Your task to perform on an android device: What's the weather going to be tomorrow? Image 0: 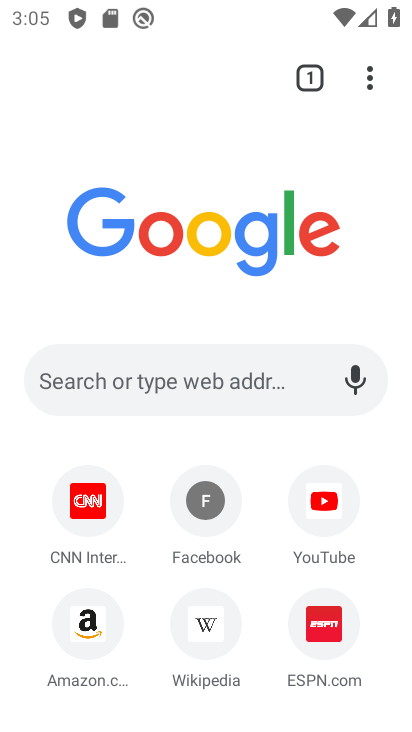
Step 0: click (170, 387)
Your task to perform on an android device: What's the weather going to be tomorrow? Image 1: 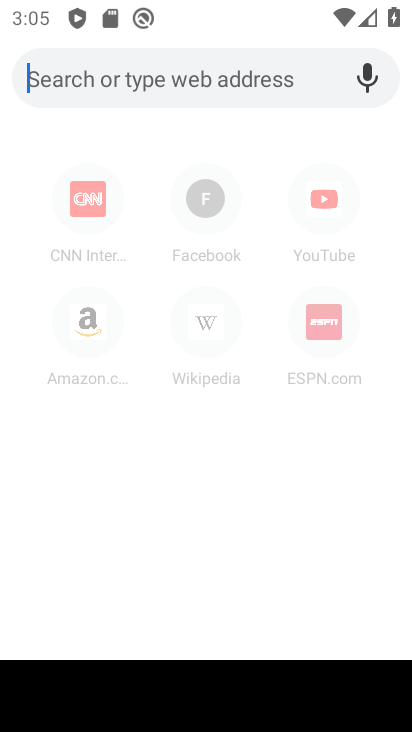
Step 1: type "weather"
Your task to perform on an android device: What's the weather going to be tomorrow? Image 2: 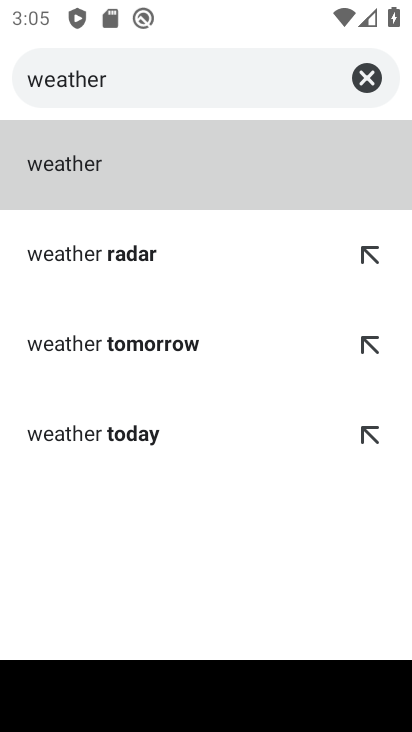
Step 2: click (186, 164)
Your task to perform on an android device: What's the weather going to be tomorrow? Image 3: 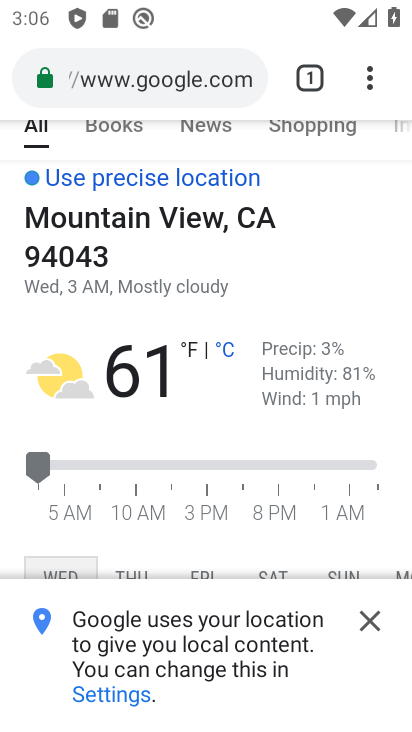
Step 3: drag from (183, 201) to (240, 230)
Your task to perform on an android device: What's the weather going to be tomorrow? Image 4: 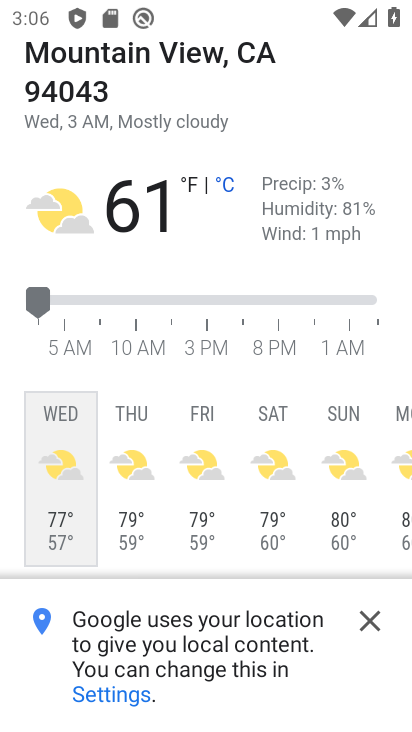
Step 4: click (123, 419)
Your task to perform on an android device: What's the weather going to be tomorrow? Image 5: 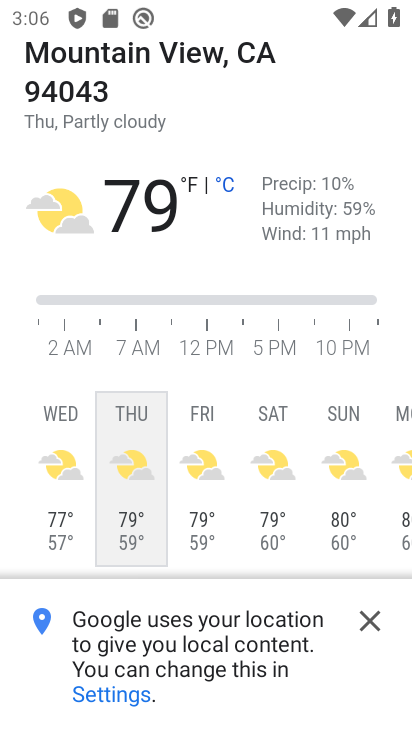
Step 5: task complete